Your task to perform on an android device: Go to Google Image 0: 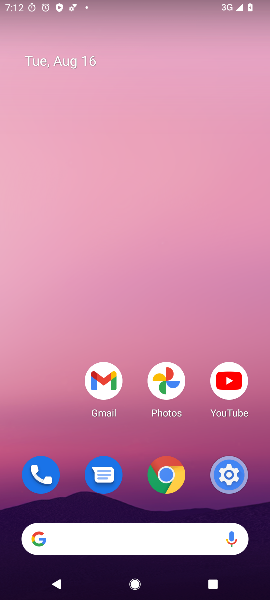
Step 0: drag from (194, 495) to (83, 28)
Your task to perform on an android device: Go to Google Image 1: 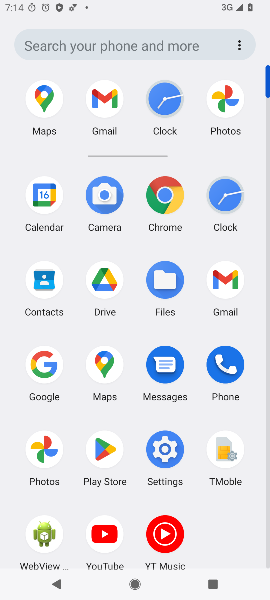
Step 1: click (52, 366)
Your task to perform on an android device: Go to Google Image 2: 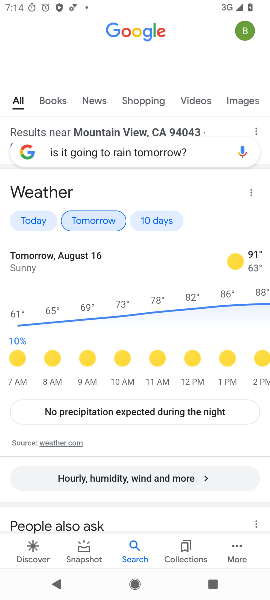
Step 2: task complete